Your task to perform on an android device: turn on data saver in the chrome app Image 0: 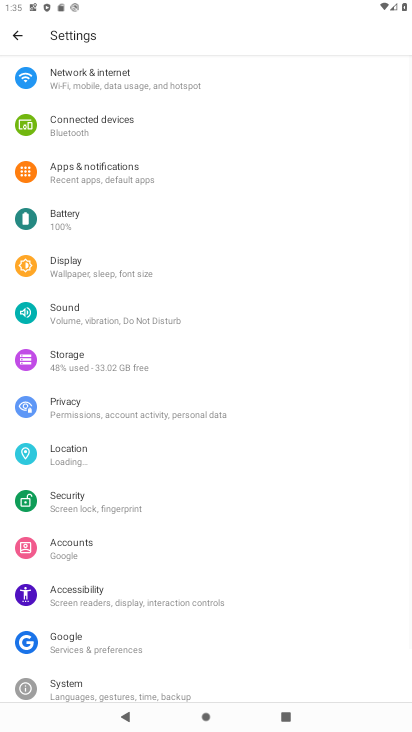
Step 0: press home button
Your task to perform on an android device: turn on data saver in the chrome app Image 1: 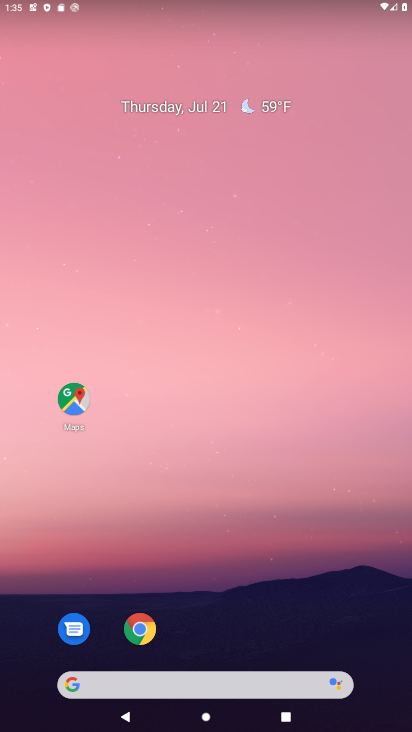
Step 1: click (139, 629)
Your task to perform on an android device: turn on data saver in the chrome app Image 2: 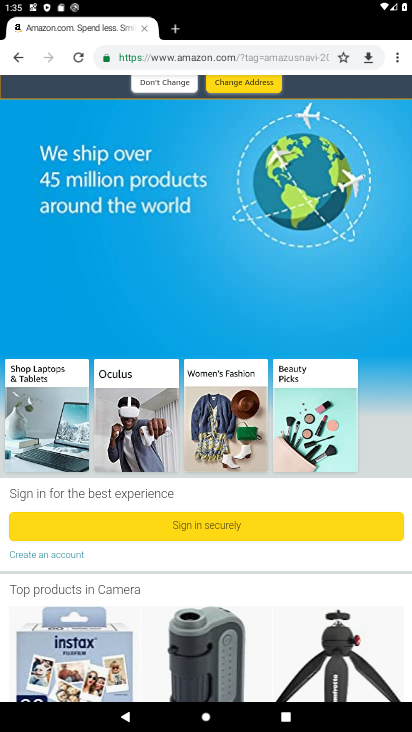
Step 2: click (397, 59)
Your task to perform on an android device: turn on data saver in the chrome app Image 3: 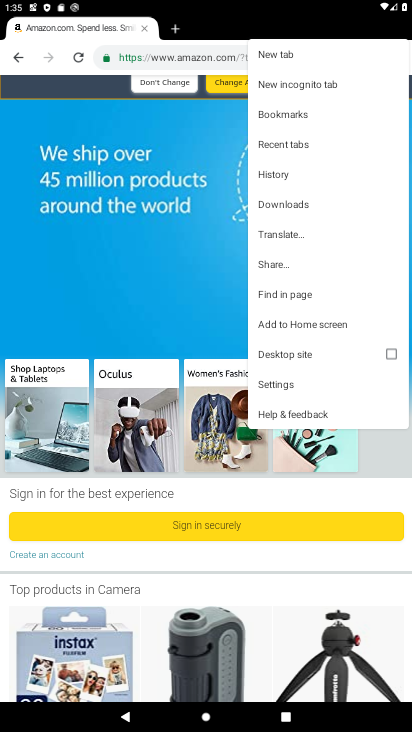
Step 3: click (281, 382)
Your task to perform on an android device: turn on data saver in the chrome app Image 4: 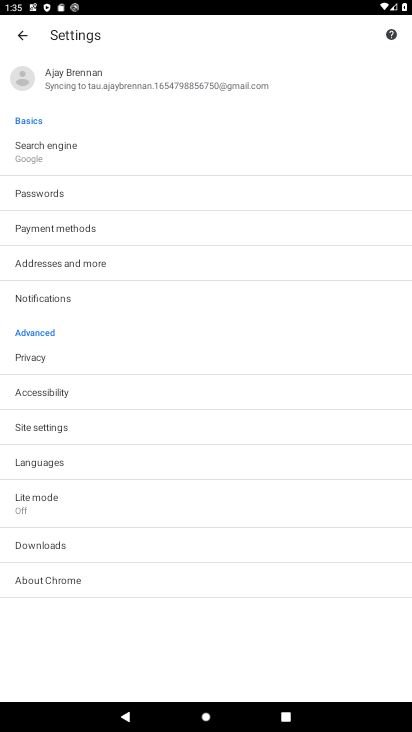
Step 4: click (30, 496)
Your task to perform on an android device: turn on data saver in the chrome app Image 5: 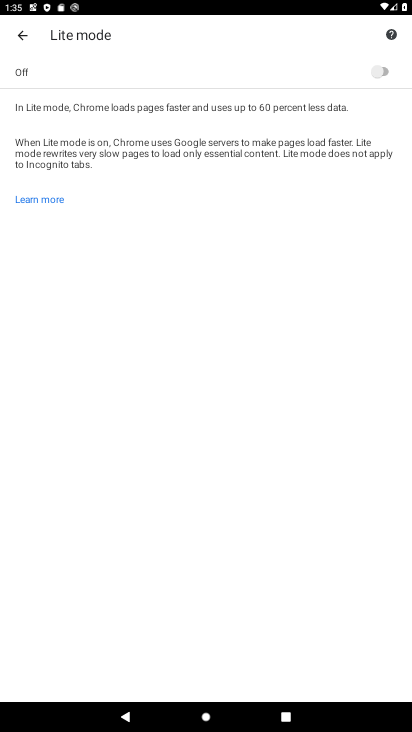
Step 5: click (385, 75)
Your task to perform on an android device: turn on data saver in the chrome app Image 6: 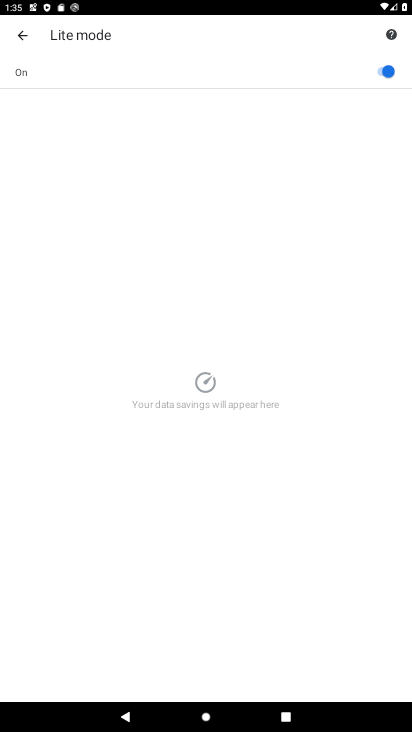
Step 6: task complete